Your task to perform on an android device: set the stopwatch Image 0: 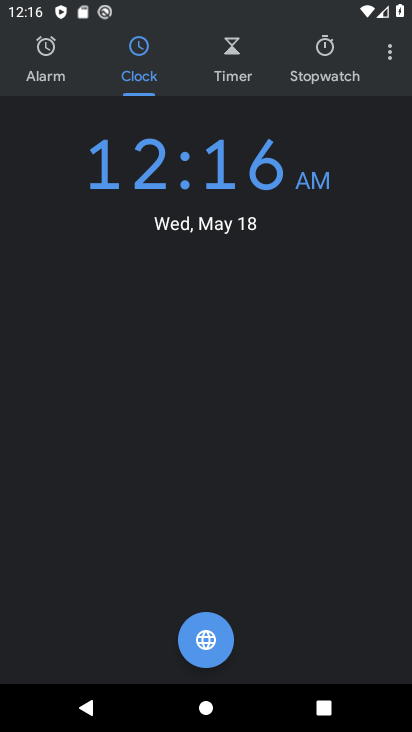
Step 0: click (326, 69)
Your task to perform on an android device: set the stopwatch Image 1: 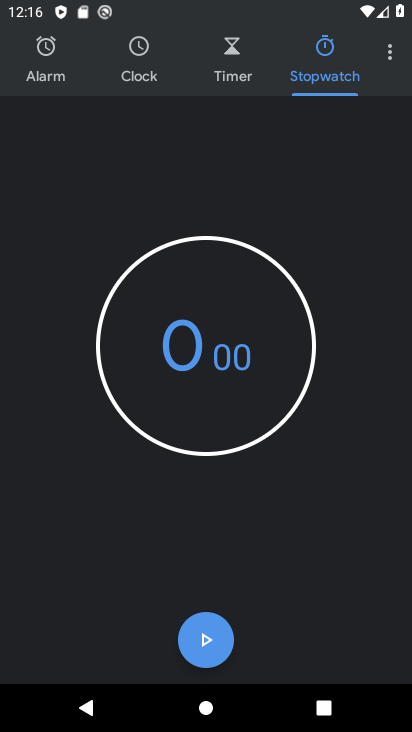
Step 1: click (222, 628)
Your task to perform on an android device: set the stopwatch Image 2: 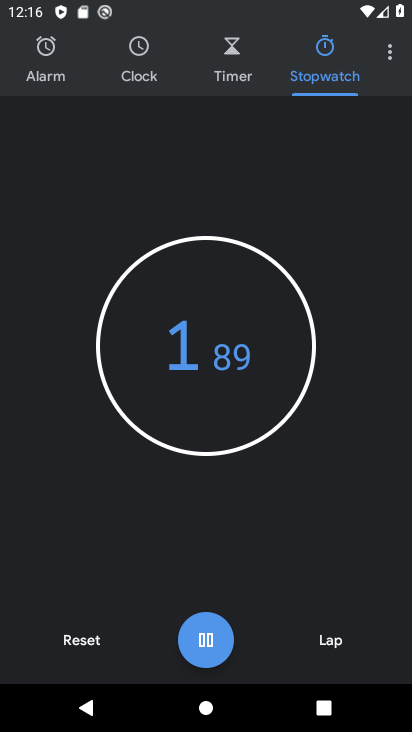
Step 2: task complete